Your task to perform on an android device: Open display settings Image 0: 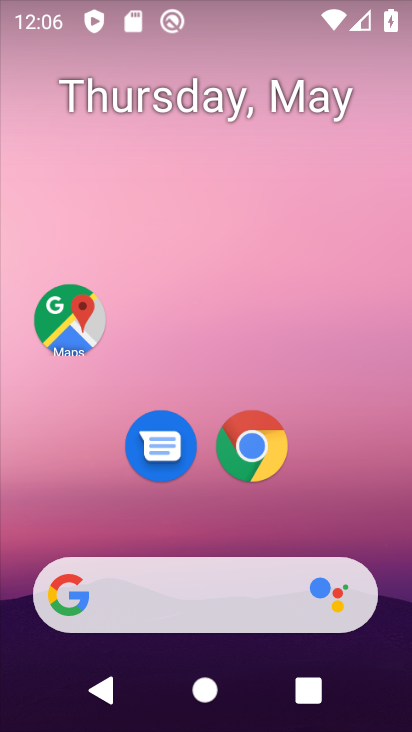
Step 0: press home button
Your task to perform on an android device: Open display settings Image 1: 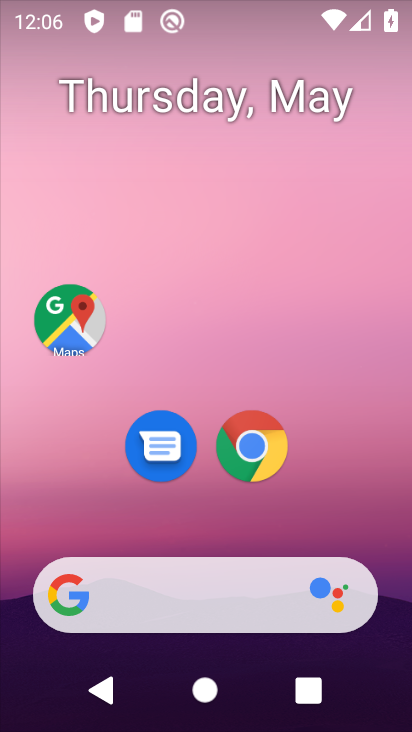
Step 1: press home button
Your task to perform on an android device: Open display settings Image 2: 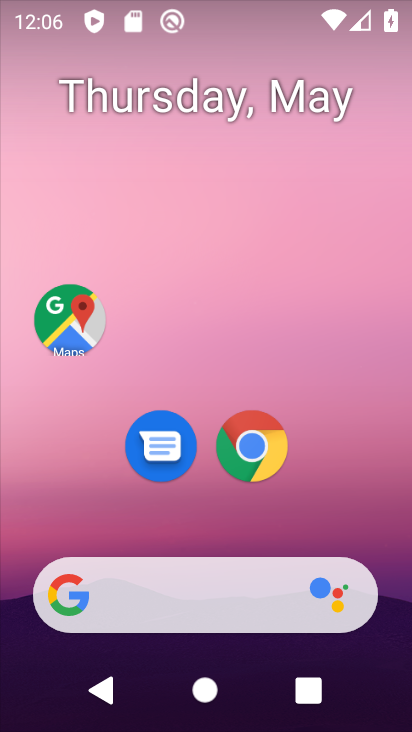
Step 2: drag from (272, 522) to (302, 23)
Your task to perform on an android device: Open display settings Image 3: 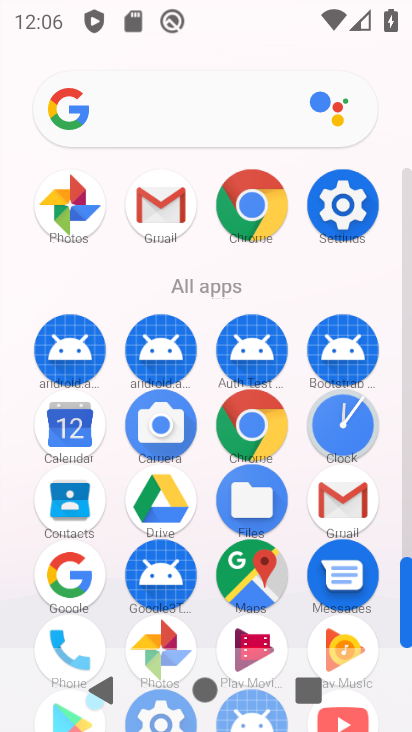
Step 3: click (334, 211)
Your task to perform on an android device: Open display settings Image 4: 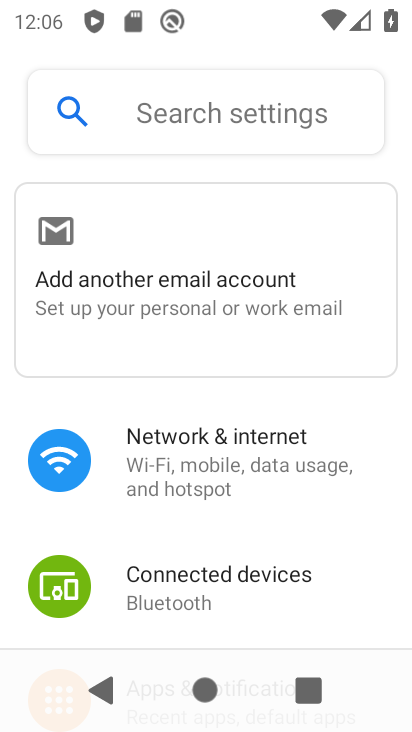
Step 4: drag from (311, 621) to (318, 354)
Your task to perform on an android device: Open display settings Image 5: 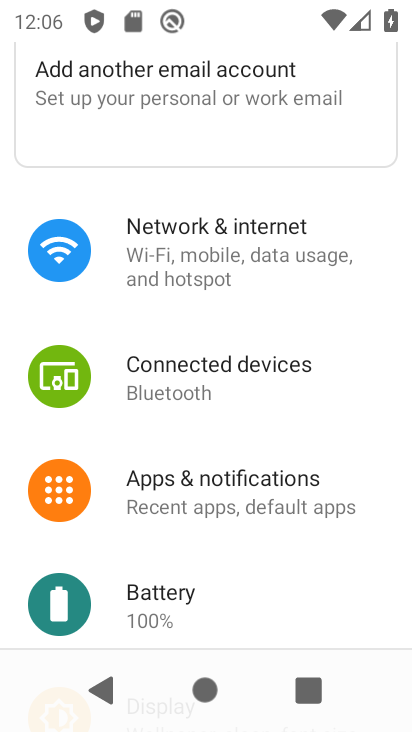
Step 5: drag from (292, 578) to (289, 311)
Your task to perform on an android device: Open display settings Image 6: 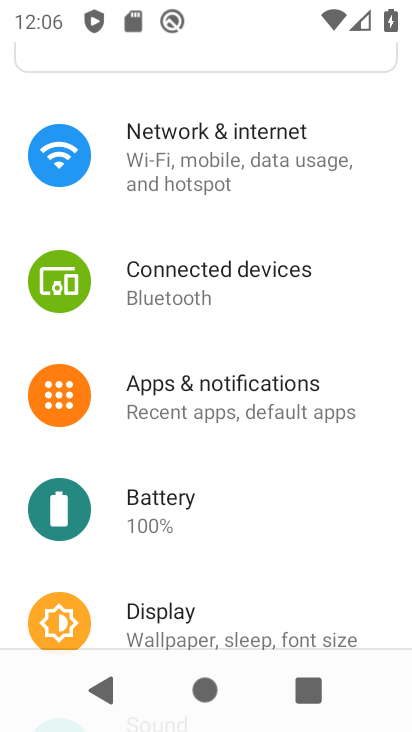
Step 6: click (202, 602)
Your task to perform on an android device: Open display settings Image 7: 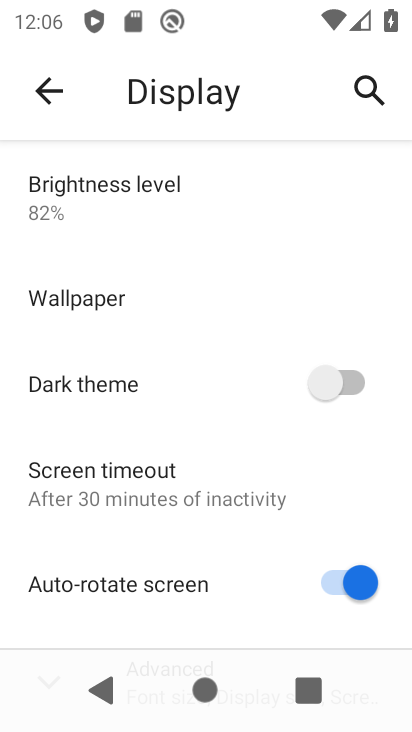
Step 7: task complete